Your task to perform on an android device: open wifi settings Image 0: 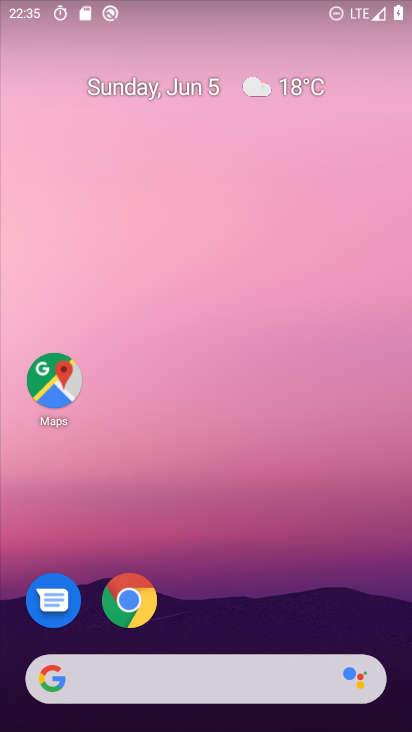
Step 0: drag from (296, 581) to (273, 191)
Your task to perform on an android device: open wifi settings Image 1: 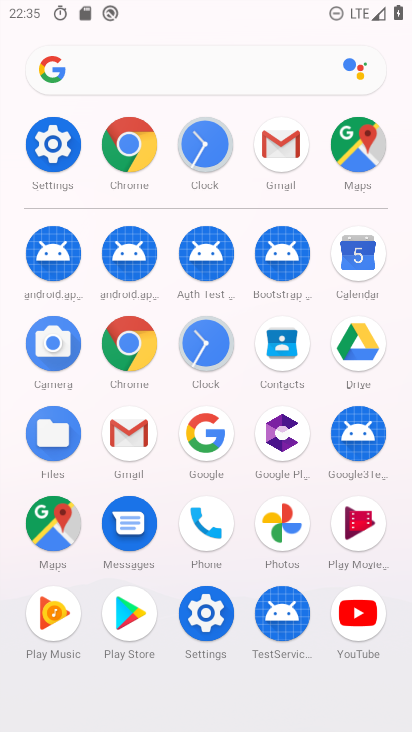
Step 1: click (40, 141)
Your task to perform on an android device: open wifi settings Image 2: 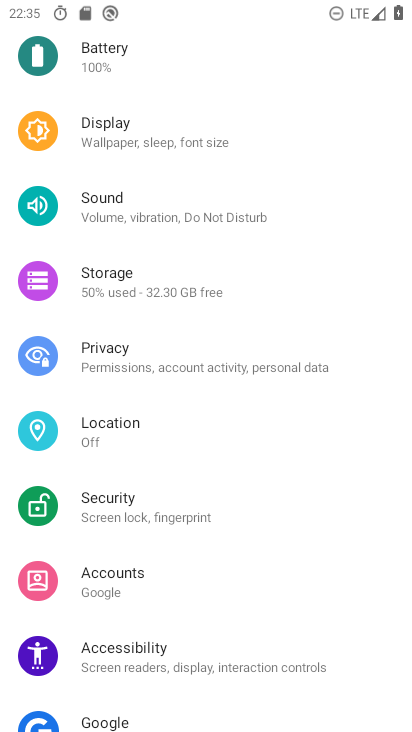
Step 2: drag from (268, 160) to (190, 609)
Your task to perform on an android device: open wifi settings Image 3: 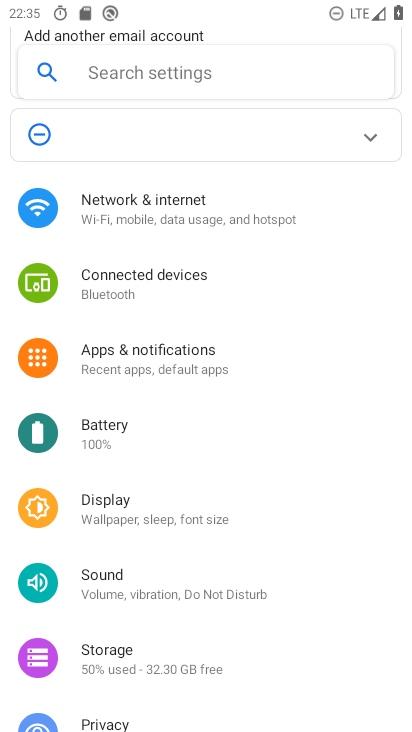
Step 3: click (146, 218)
Your task to perform on an android device: open wifi settings Image 4: 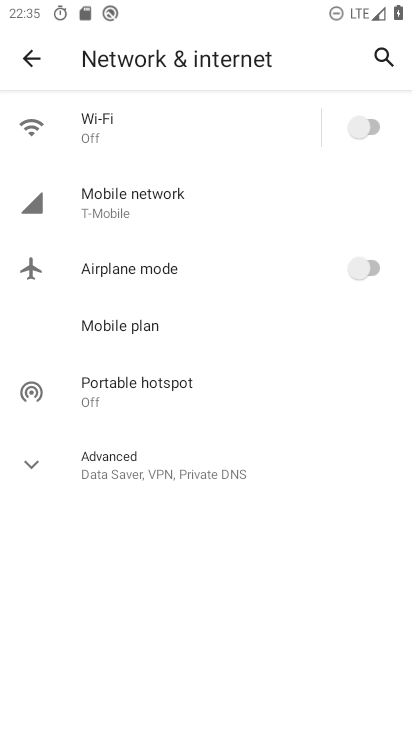
Step 4: click (195, 126)
Your task to perform on an android device: open wifi settings Image 5: 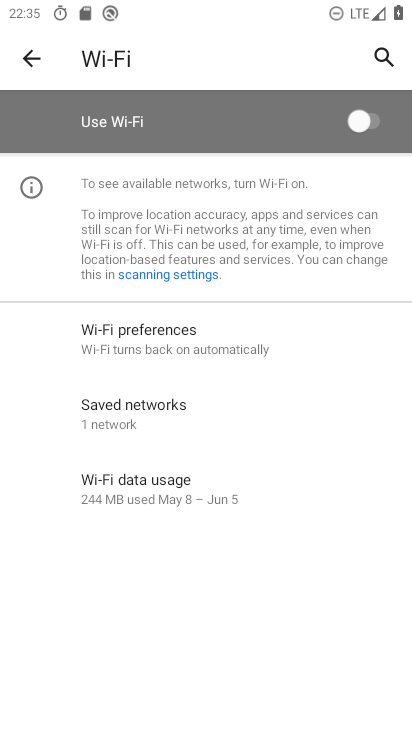
Step 5: click (355, 121)
Your task to perform on an android device: open wifi settings Image 6: 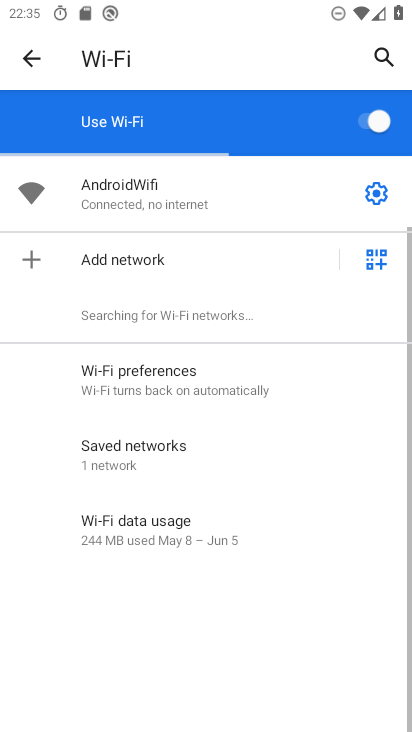
Step 6: click (373, 182)
Your task to perform on an android device: open wifi settings Image 7: 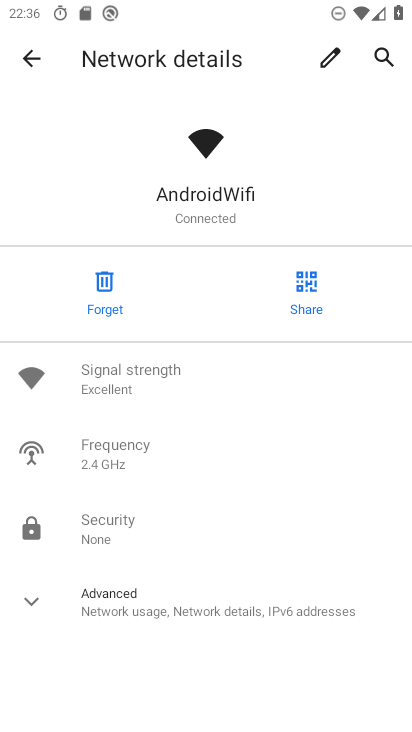
Step 7: task complete